Your task to perform on an android device: star an email in the gmail app Image 0: 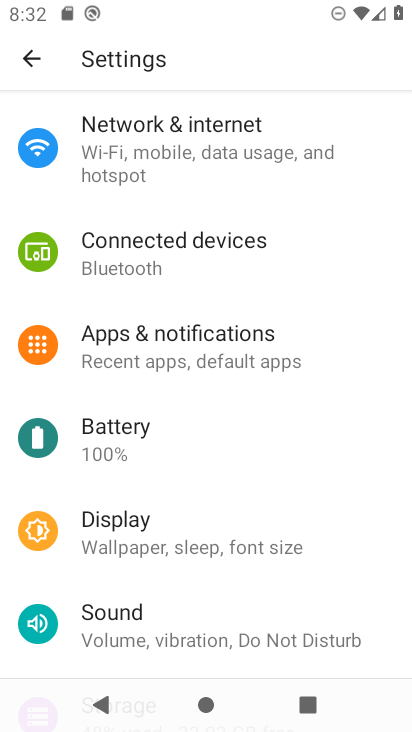
Step 0: press home button
Your task to perform on an android device: star an email in the gmail app Image 1: 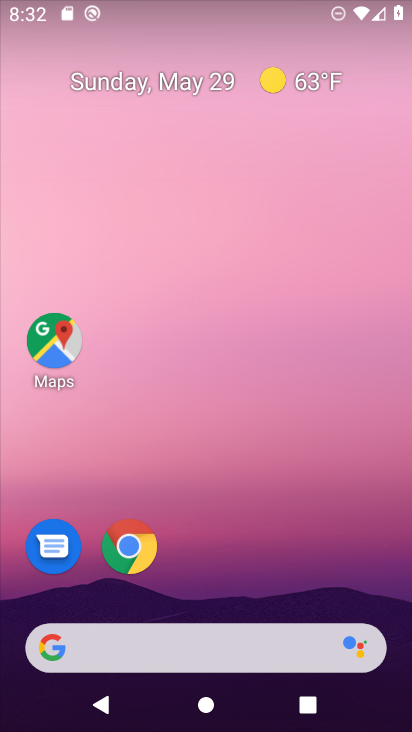
Step 1: drag from (131, 649) to (299, 63)
Your task to perform on an android device: star an email in the gmail app Image 2: 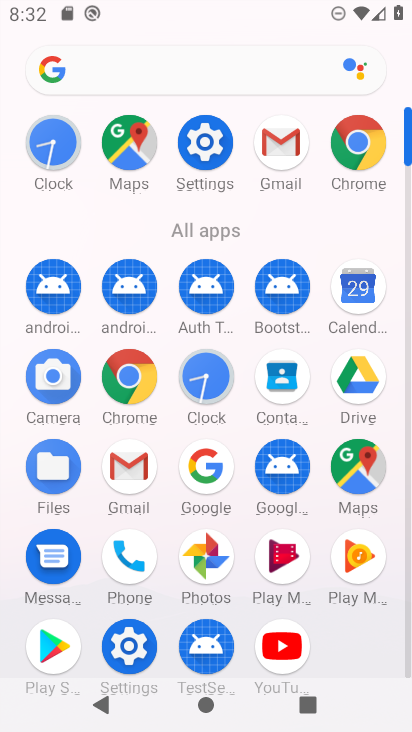
Step 2: click (293, 138)
Your task to perform on an android device: star an email in the gmail app Image 3: 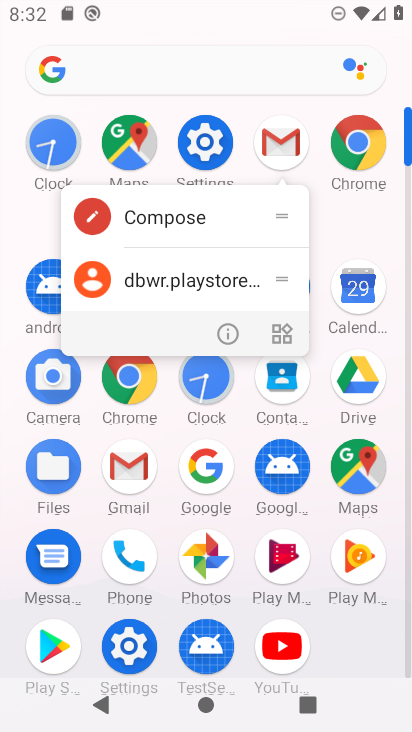
Step 3: click (279, 141)
Your task to perform on an android device: star an email in the gmail app Image 4: 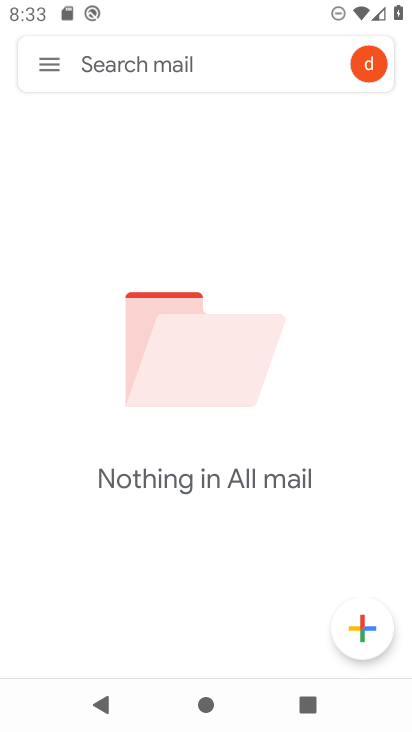
Step 4: task complete